Your task to perform on an android device: show emergency info Image 0: 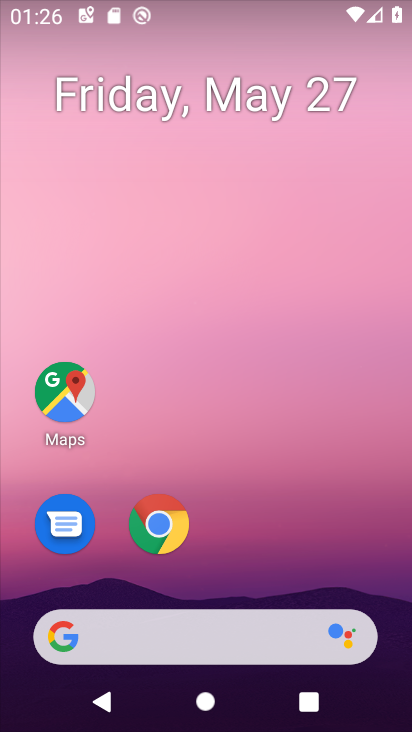
Step 0: drag from (259, 539) to (323, 11)
Your task to perform on an android device: show emergency info Image 1: 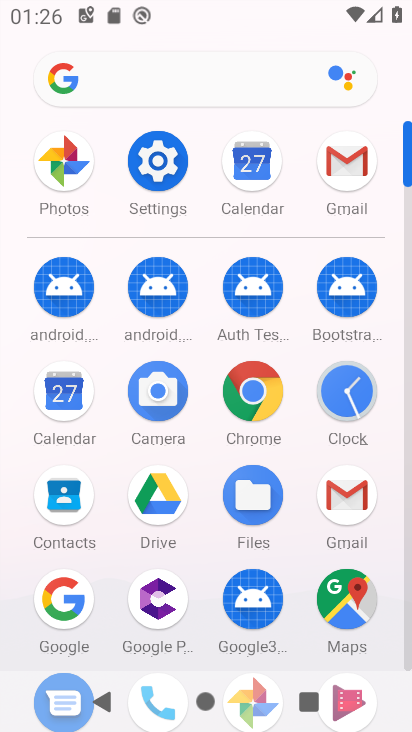
Step 1: click (167, 169)
Your task to perform on an android device: show emergency info Image 2: 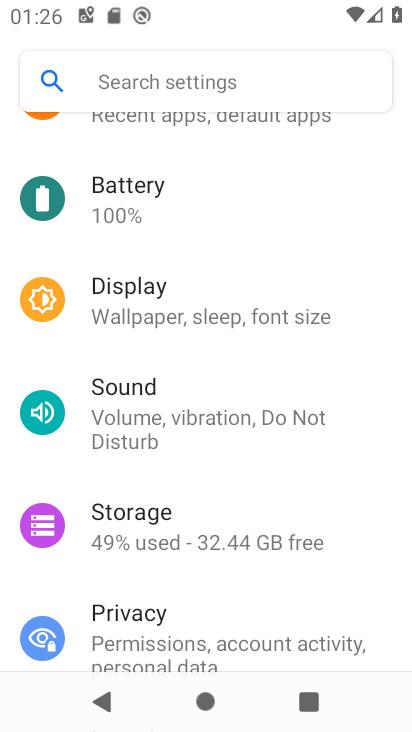
Step 2: drag from (202, 600) to (247, 170)
Your task to perform on an android device: show emergency info Image 3: 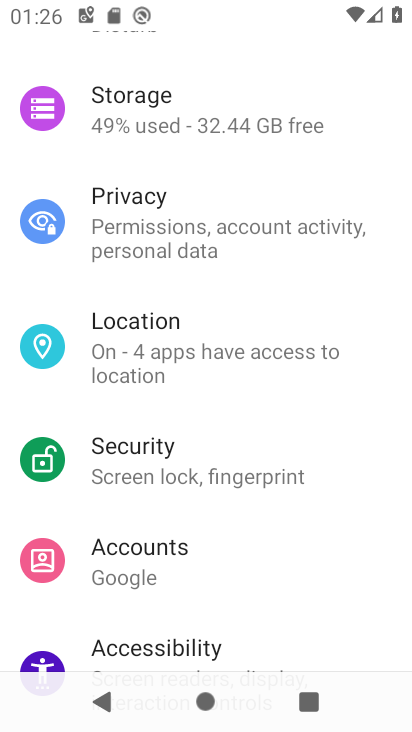
Step 3: drag from (224, 425) to (249, 159)
Your task to perform on an android device: show emergency info Image 4: 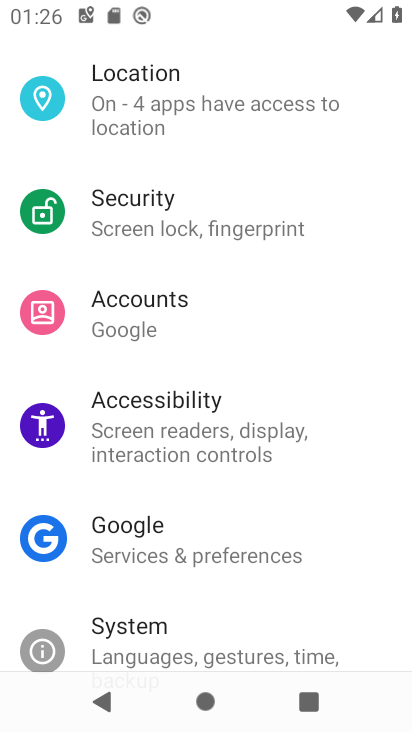
Step 4: drag from (169, 596) to (207, 222)
Your task to perform on an android device: show emergency info Image 5: 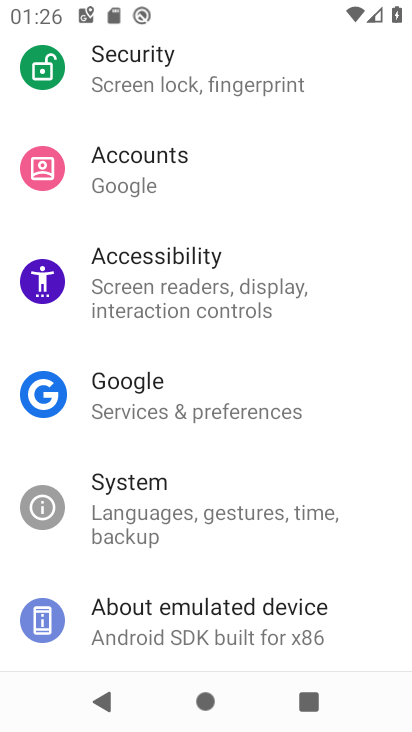
Step 5: click (192, 619)
Your task to perform on an android device: show emergency info Image 6: 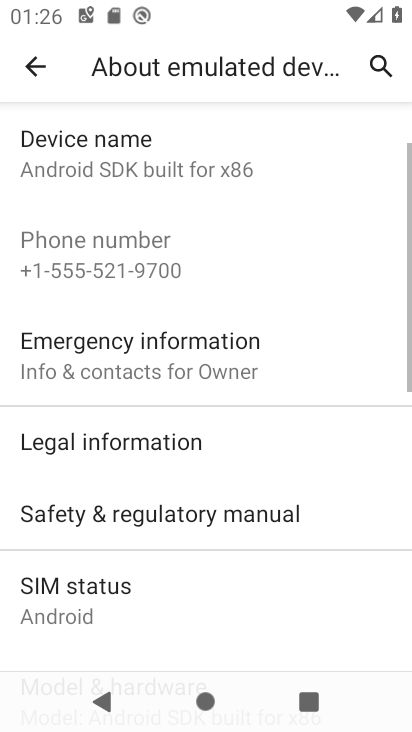
Step 6: click (222, 363)
Your task to perform on an android device: show emergency info Image 7: 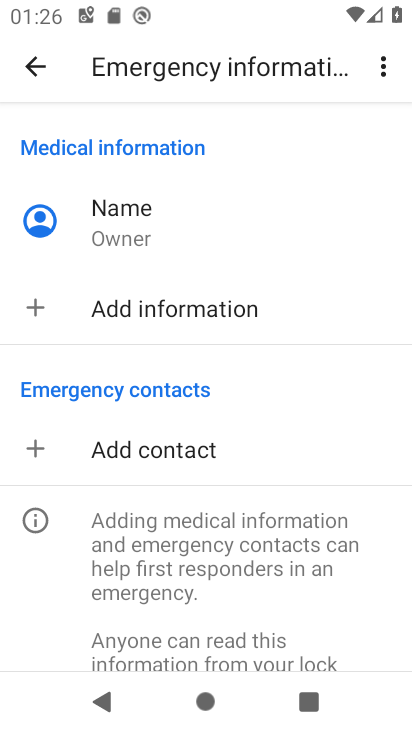
Step 7: task complete